Your task to perform on an android device: Open Youtube and go to "Your channel" Image 0: 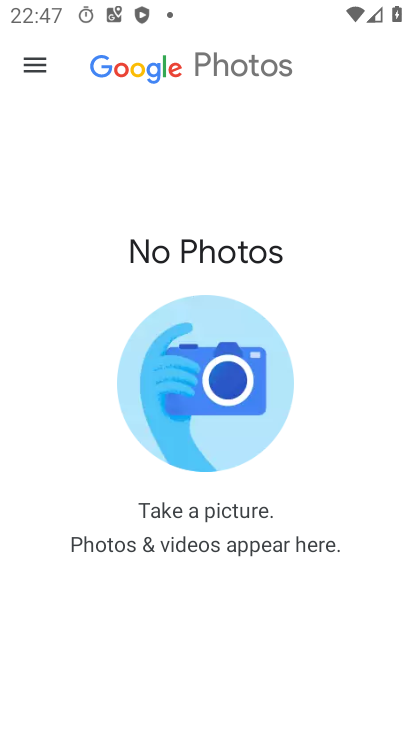
Step 0: press home button
Your task to perform on an android device: Open Youtube and go to "Your channel" Image 1: 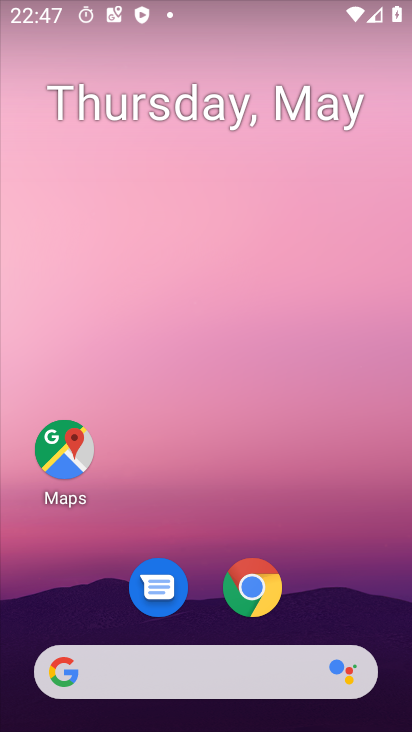
Step 1: drag from (331, 638) to (327, 15)
Your task to perform on an android device: Open Youtube and go to "Your channel" Image 2: 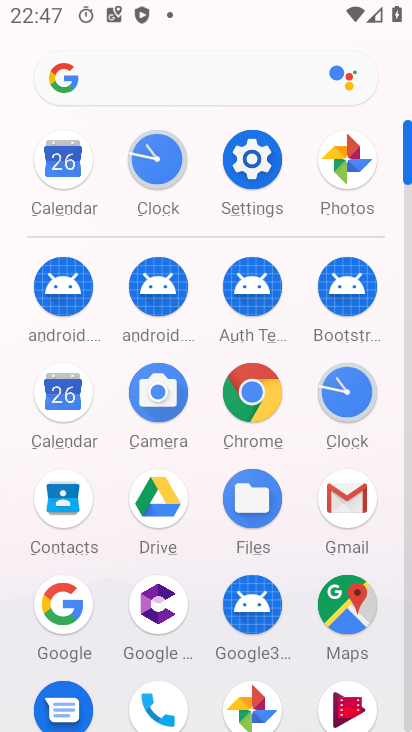
Step 2: click (404, 605)
Your task to perform on an android device: Open Youtube and go to "Your channel" Image 3: 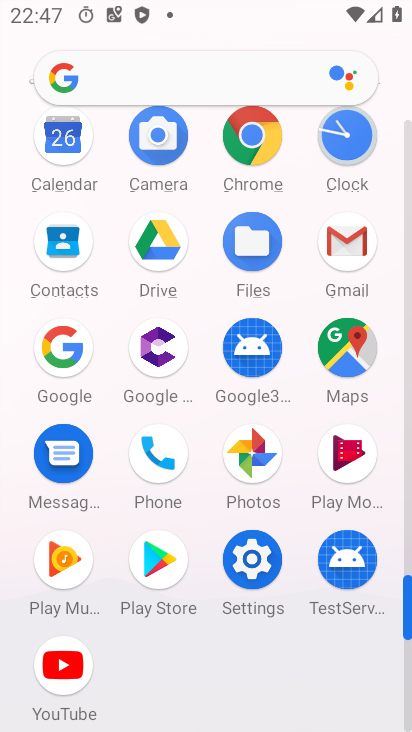
Step 3: click (56, 666)
Your task to perform on an android device: Open Youtube and go to "Your channel" Image 4: 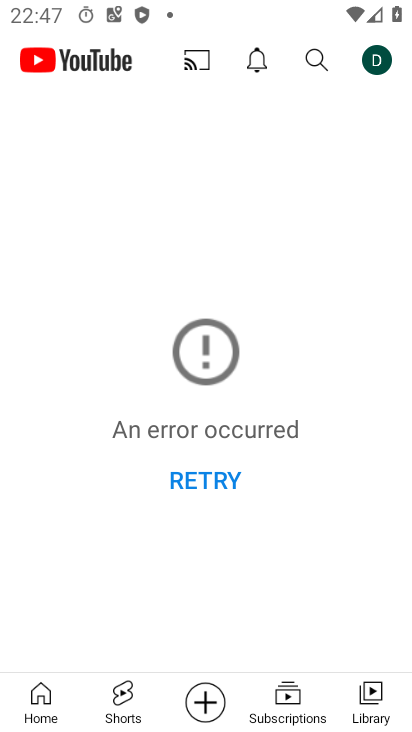
Step 4: click (379, 62)
Your task to perform on an android device: Open Youtube and go to "Your channel" Image 5: 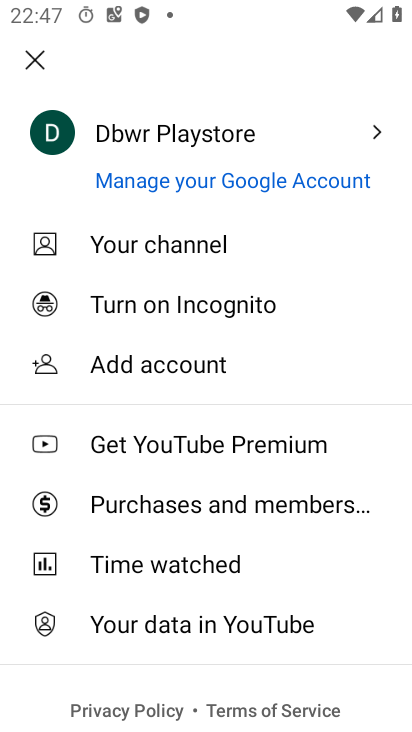
Step 5: click (184, 239)
Your task to perform on an android device: Open Youtube and go to "Your channel" Image 6: 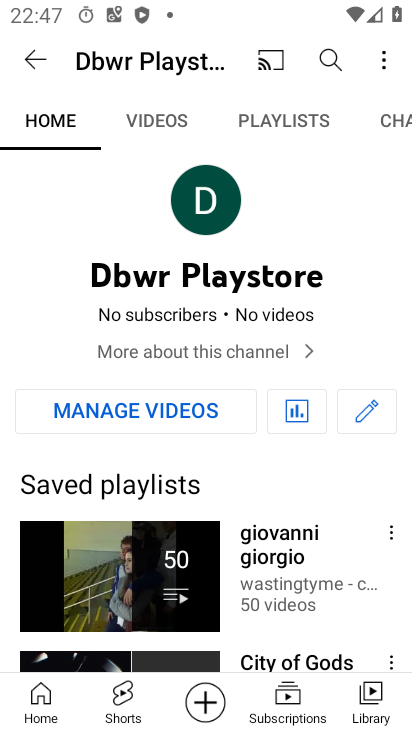
Step 6: task complete